Your task to perform on an android device: Do I have any events today? Image 0: 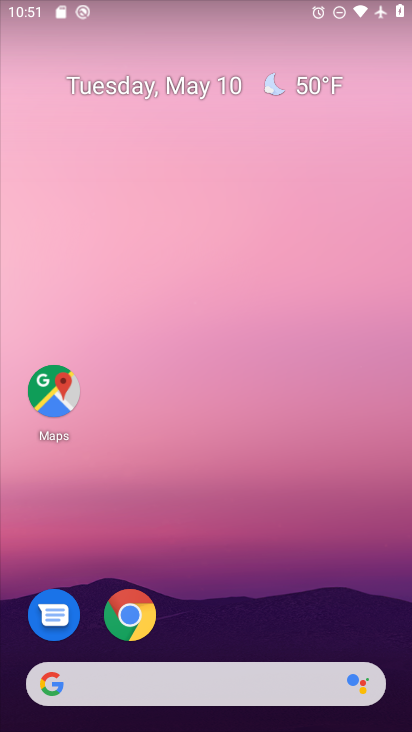
Step 0: drag from (391, 626) to (272, 78)
Your task to perform on an android device: Do I have any events today? Image 1: 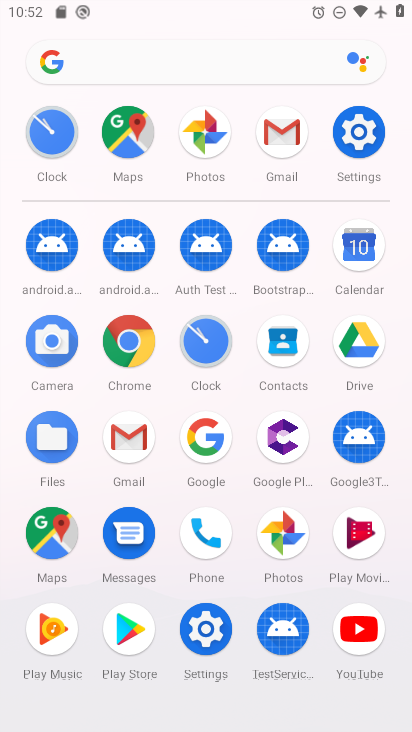
Step 1: click (357, 246)
Your task to perform on an android device: Do I have any events today? Image 2: 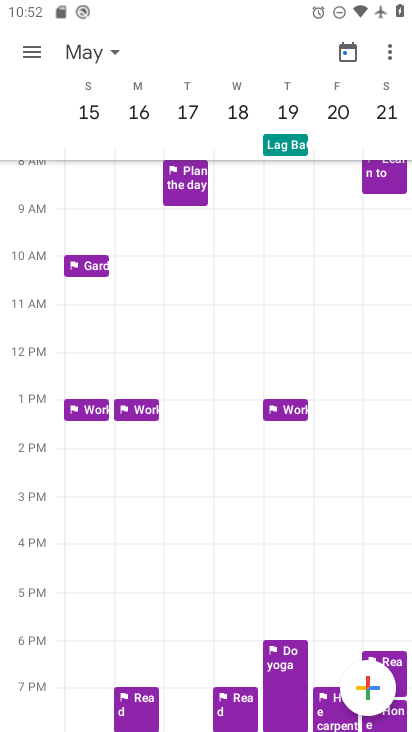
Step 2: click (32, 42)
Your task to perform on an android device: Do I have any events today? Image 3: 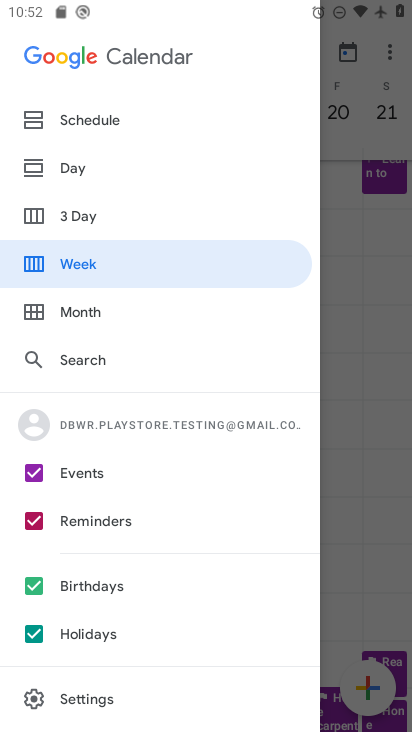
Step 3: click (77, 164)
Your task to perform on an android device: Do I have any events today? Image 4: 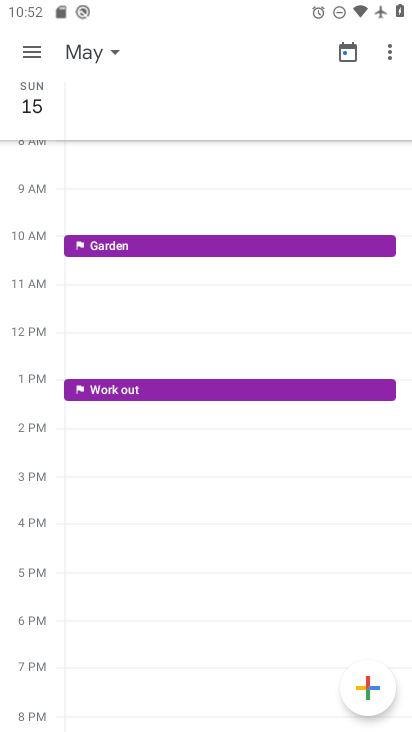
Step 4: task complete